Your task to perform on an android device: Open the map Image 0: 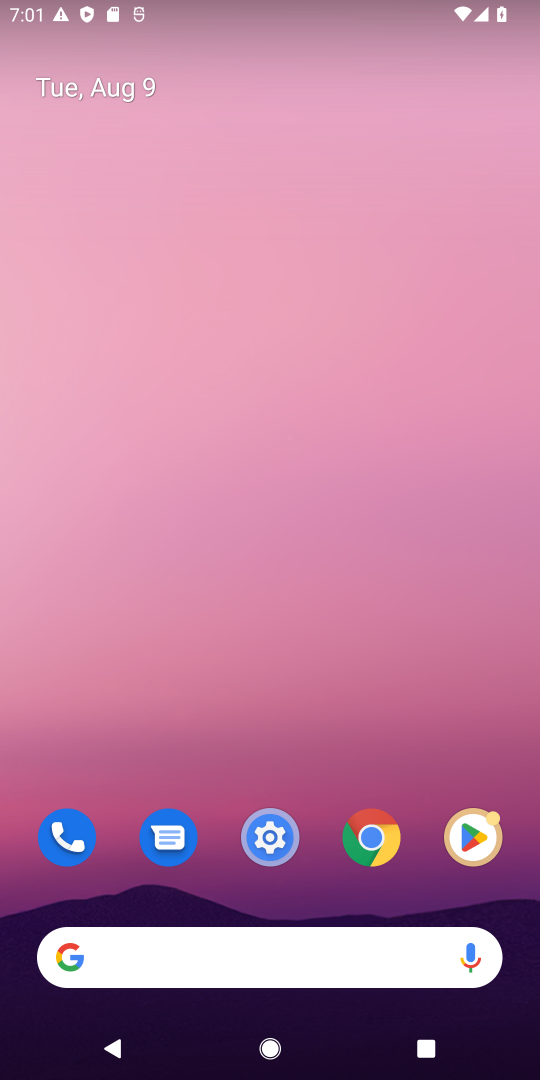
Step 0: drag from (332, 879) to (339, 237)
Your task to perform on an android device: Open the map Image 1: 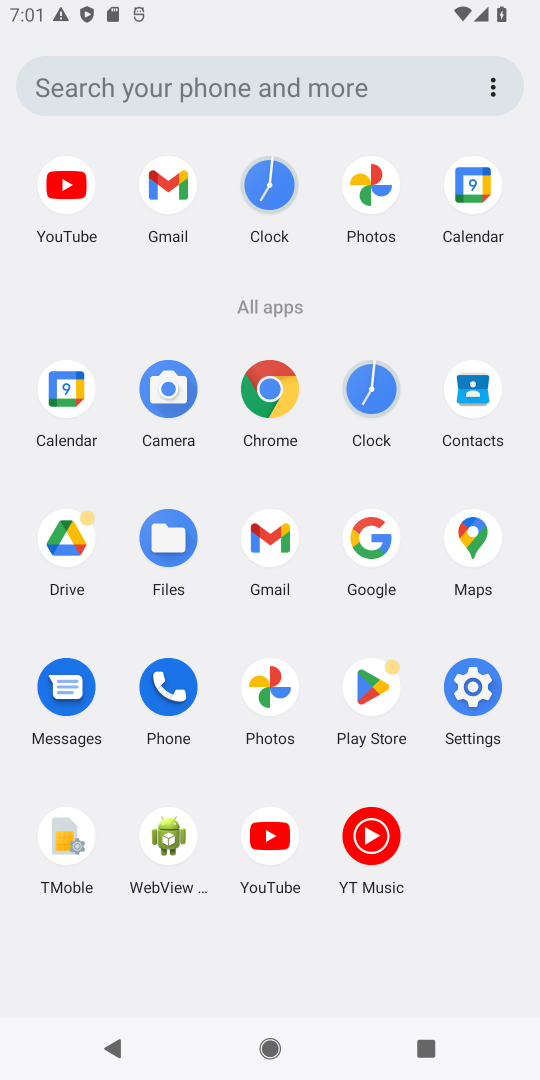
Step 1: click (460, 523)
Your task to perform on an android device: Open the map Image 2: 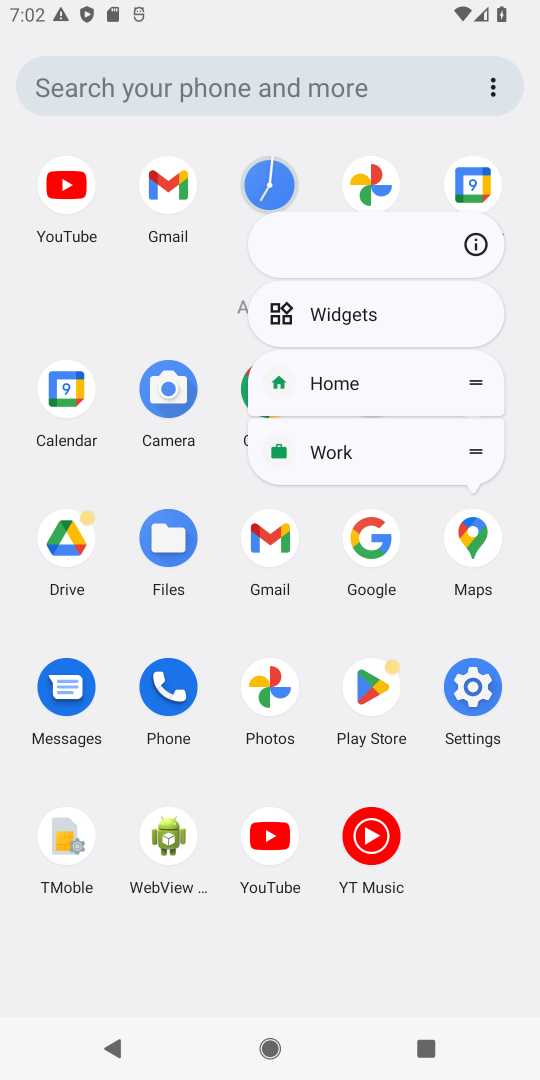
Step 2: click (491, 234)
Your task to perform on an android device: Open the map Image 3: 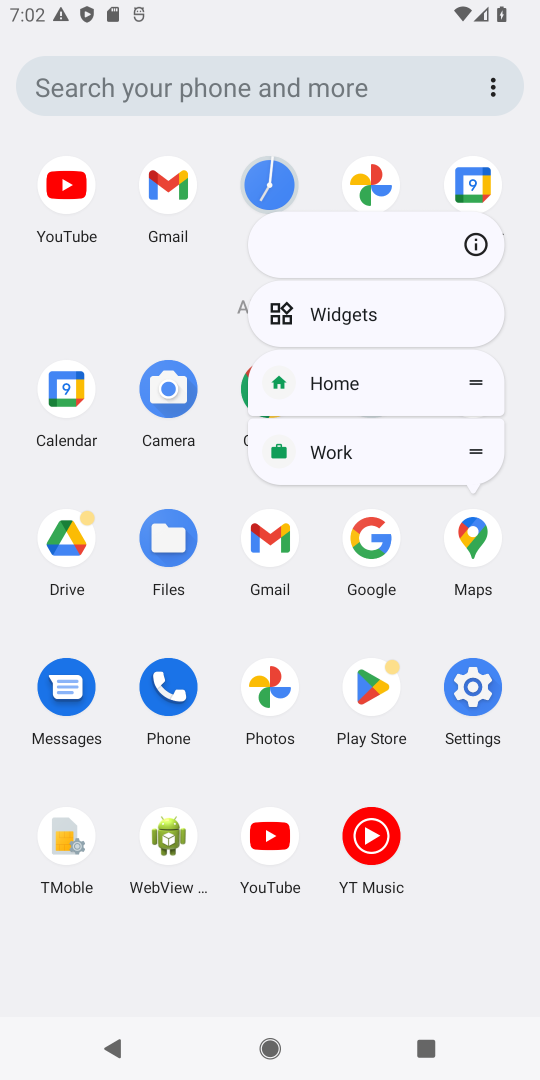
Step 3: click (475, 250)
Your task to perform on an android device: Open the map Image 4: 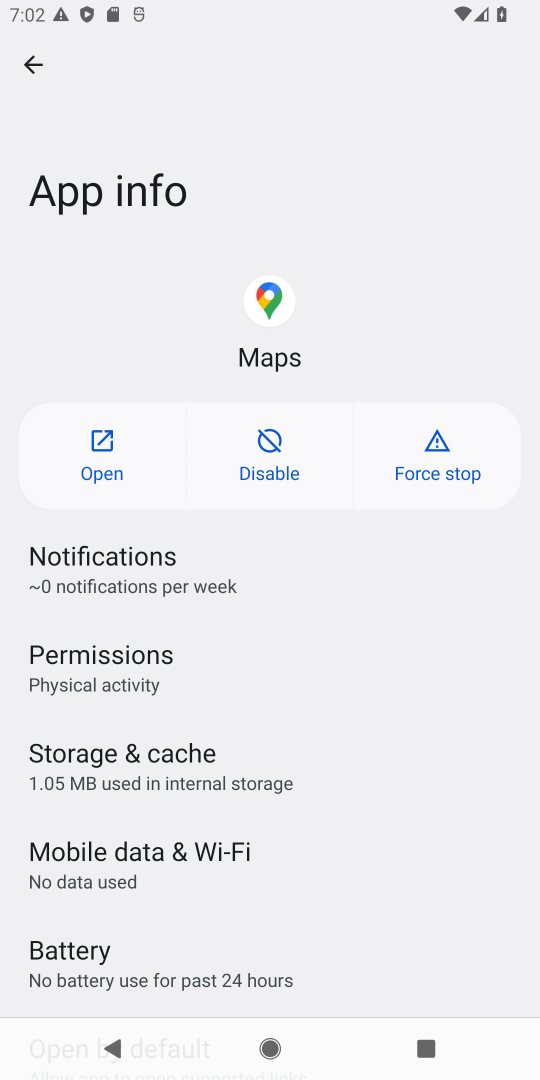
Step 4: click (109, 458)
Your task to perform on an android device: Open the map Image 5: 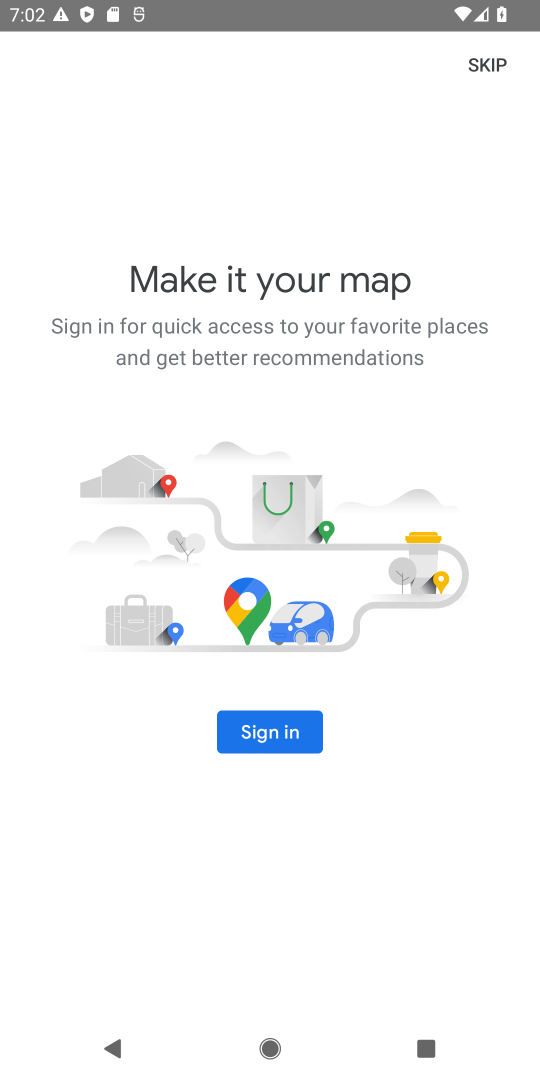
Step 5: click (478, 62)
Your task to perform on an android device: Open the map Image 6: 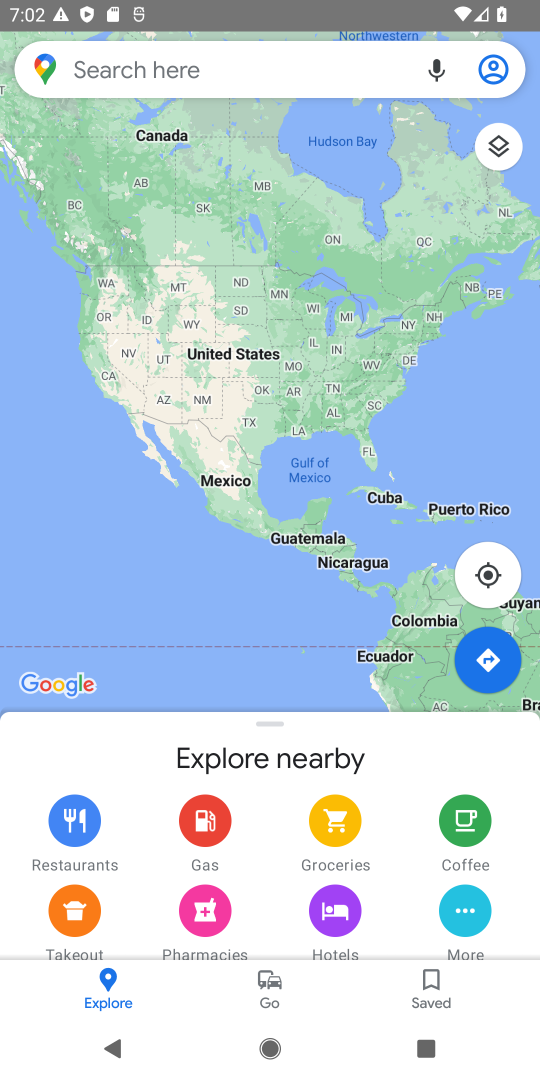
Step 6: task complete